Your task to perform on an android device: turn on sleep mode Image 0: 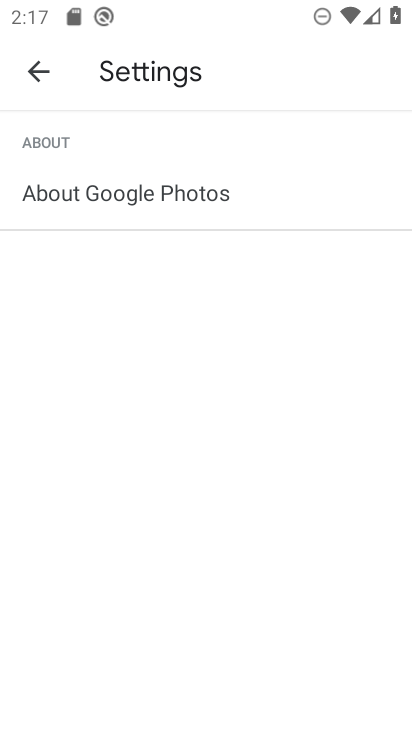
Step 0: click (23, 72)
Your task to perform on an android device: turn on sleep mode Image 1: 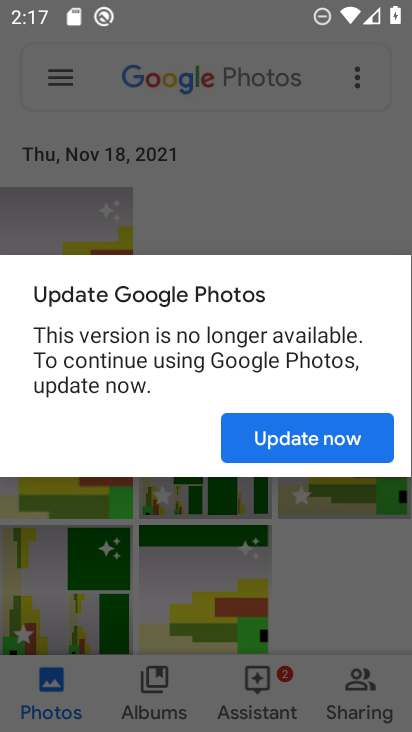
Step 1: click (277, 169)
Your task to perform on an android device: turn on sleep mode Image 2: 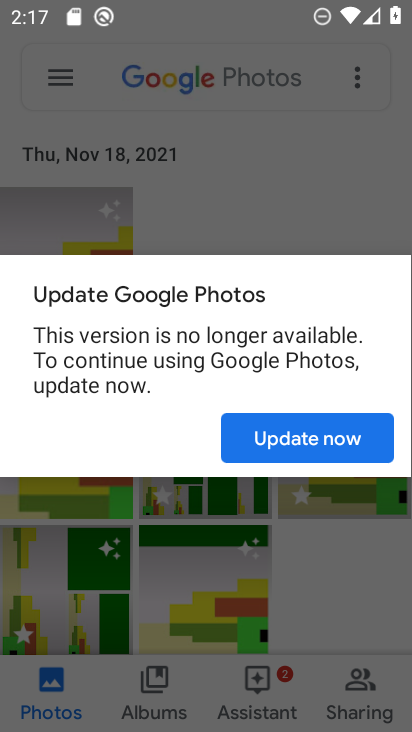
Step 2: click (278, 163)
Your task to perform on an android device: turn on sleep mode Image 3: 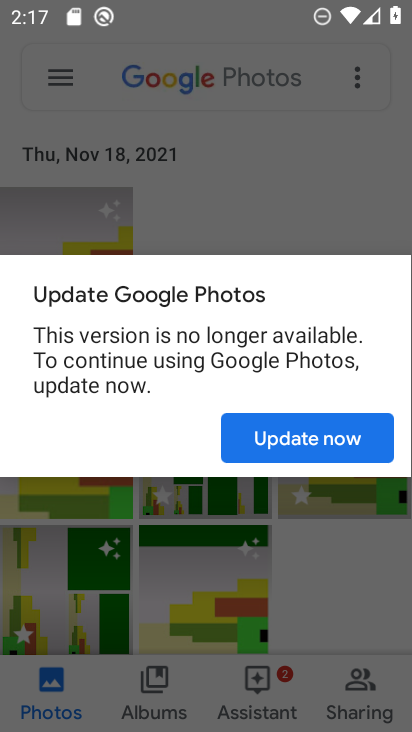
Step 3: click (278, 163)
Your task to perform on an android device: turn on sleep mode Image 4: 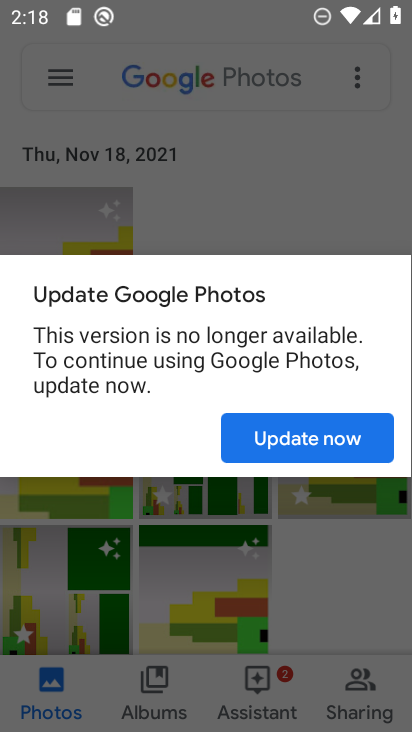
Step 4: click (267, 194)
Your task to perform on an android device: turn on sleep mode Image 5: 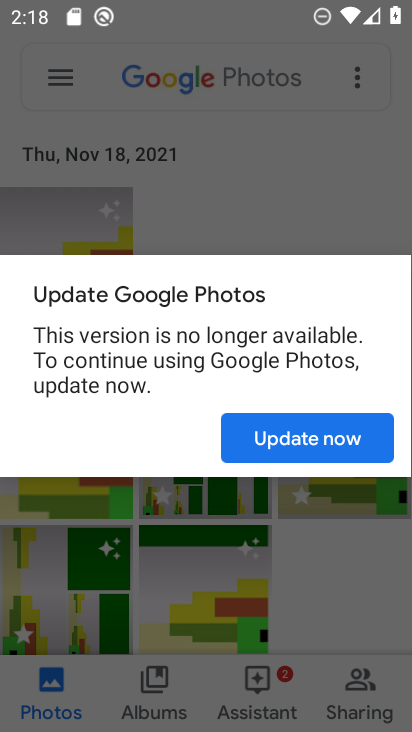
Step 5: click (269, 194)
Your task to perform on an android device: turn on sleep mode Image 6: 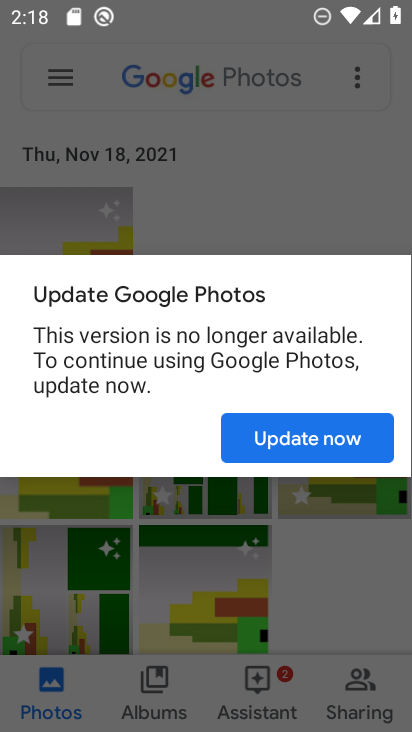
Step 6: click (276, 200)
Your task to perform on an android device: turn on sleep mode Image 7: 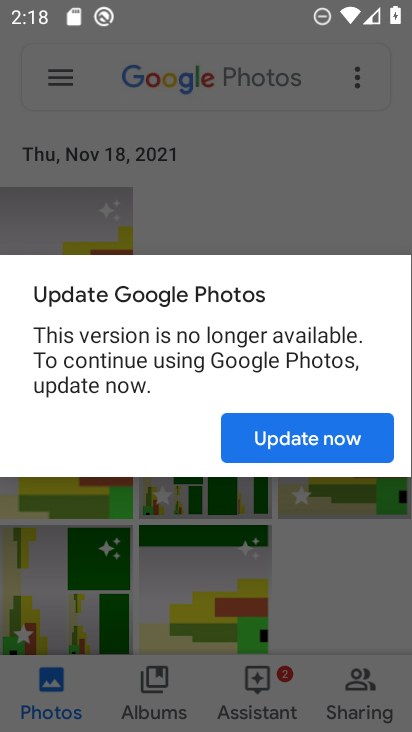
Step 7: click (276, 203)
Your task to perform on an android device: turn on sleep mode Image 8: 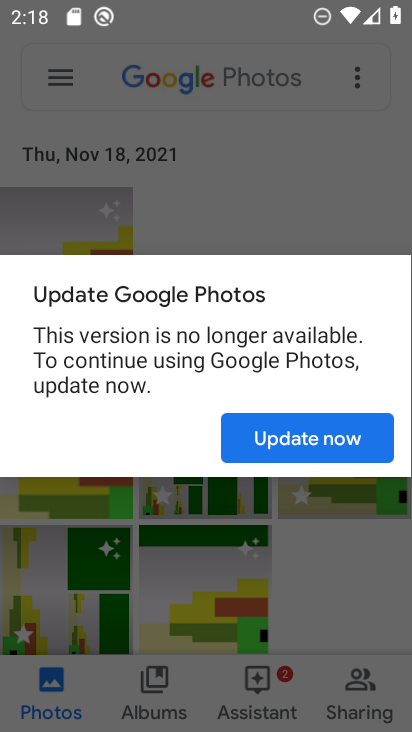
Step 8: click (277, 204)
Your task to perform on an android device: turn on sleep mode Image 9: 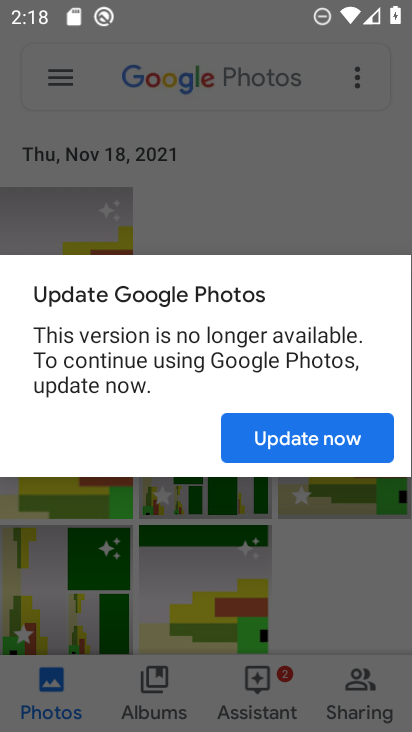
Step 9: press back button
Your task to perform on an android device: turn on sleep mode Image 10: 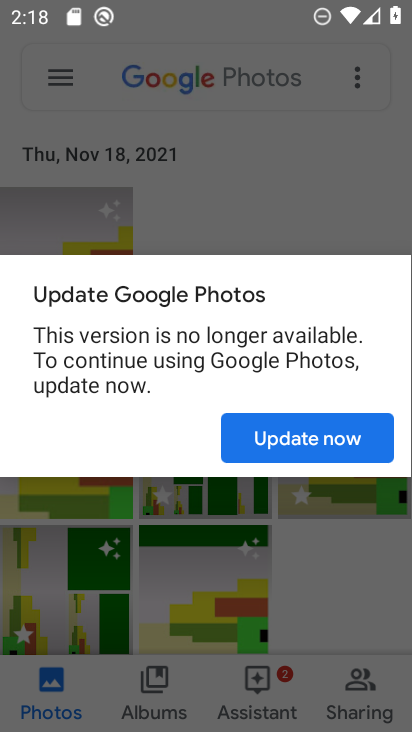
Step 10: click (261, 206)
Your task to perform on an android device: turn on sleep mode Image 11: 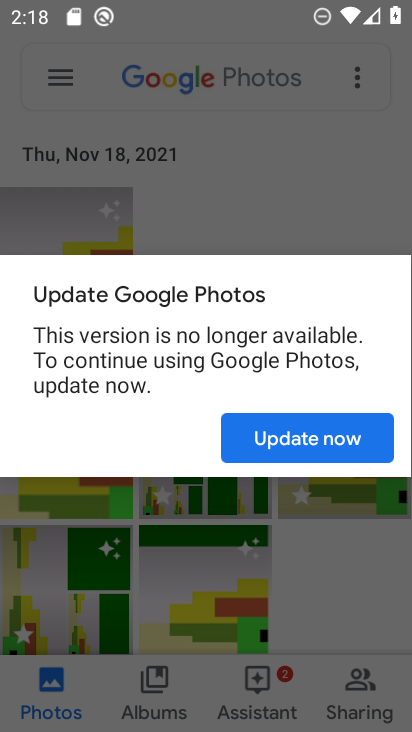
Step 11: click (269, 194)
Your task to perform on an android device: turn on sleep mode Image 12: 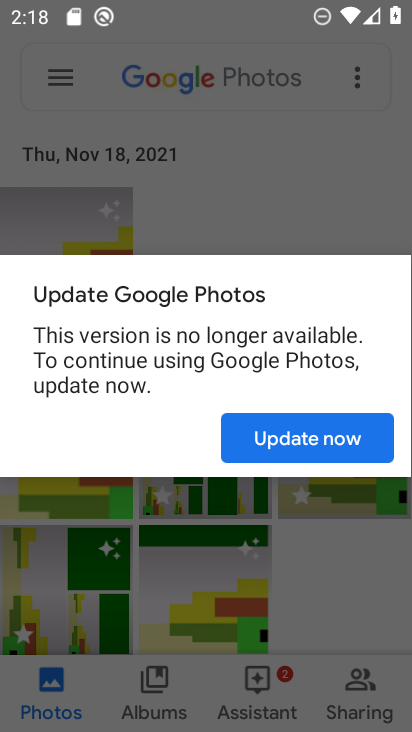
Step 12: click (284, 193)
Your task to perform on an android device: turn on sleep mode Image 13: 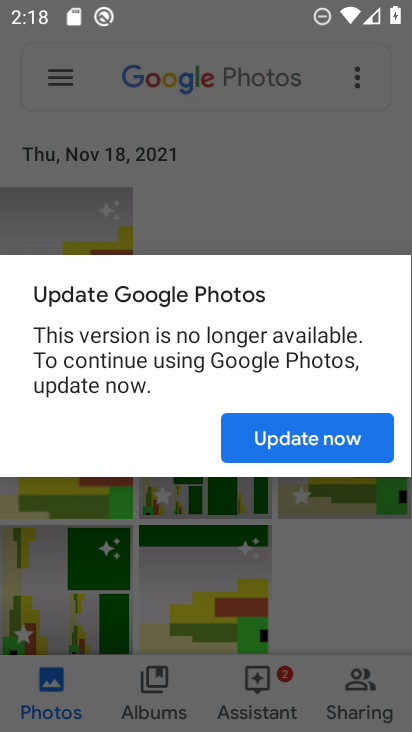
Step 13: click (281, 195)
Your task to perform on an android device: turn on sleep mode Image 14: 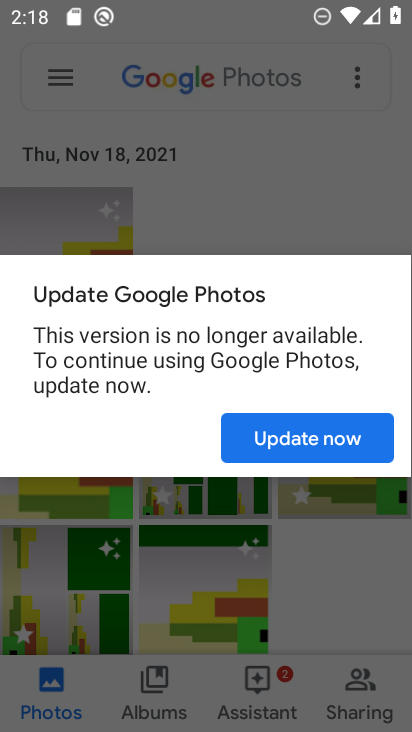
Step 14: click (284, 201)
Your task to perform on an android device: turn on sleep mode Image 15: 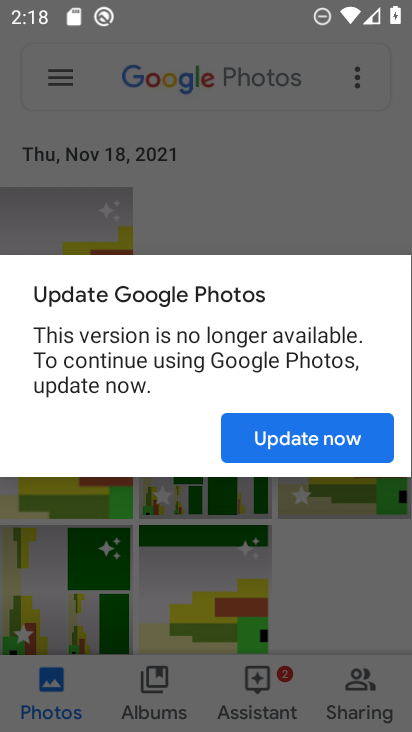
Step 15: click (289, 183)
Your task to perform on an android device: turn on sleep mode Image 16: 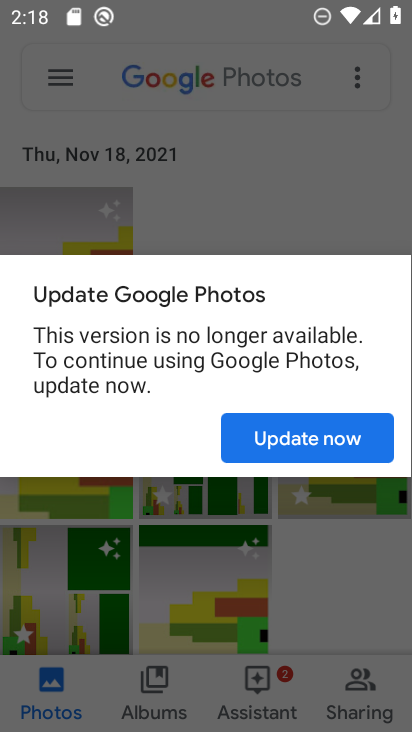
Step 16: click (292, 182)
Your task to perform on an android device: turn on sleep mode Image 17: 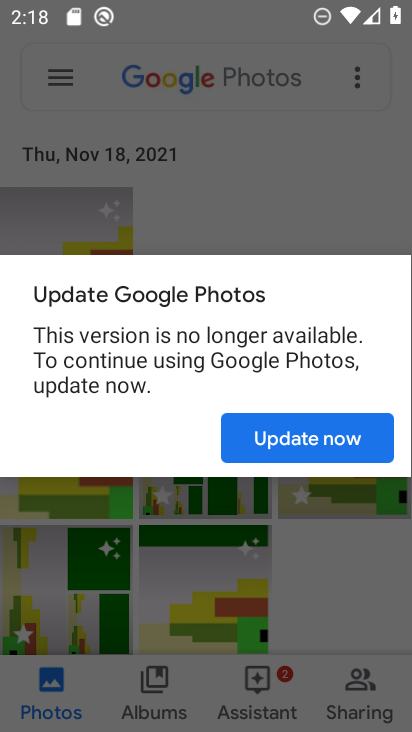
Step 17: press back button
Your task to perform on an android device: turn on sleep mode Image 18: 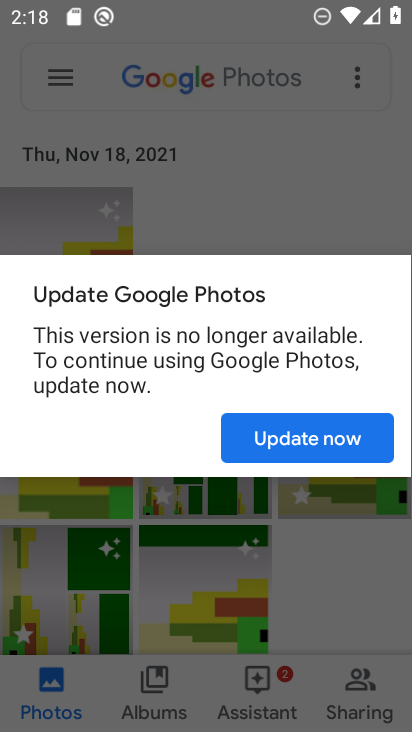
Step 18: press back button
Your task to perform on an android device: turn on sleep mode Image 19: 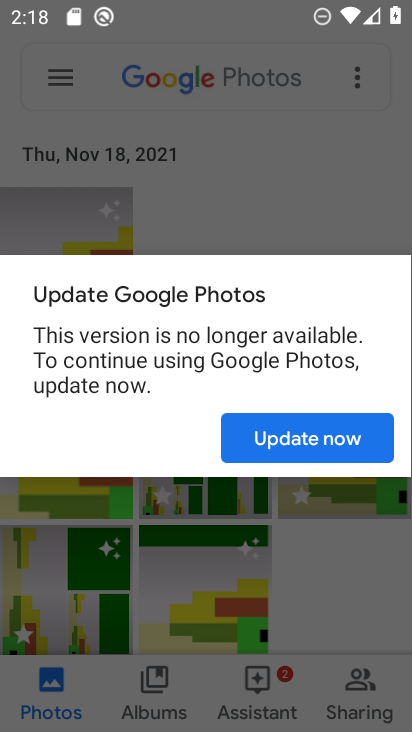
Step 19: press back button
Your task to perform on an android device: turn on sleep mode Image 20: 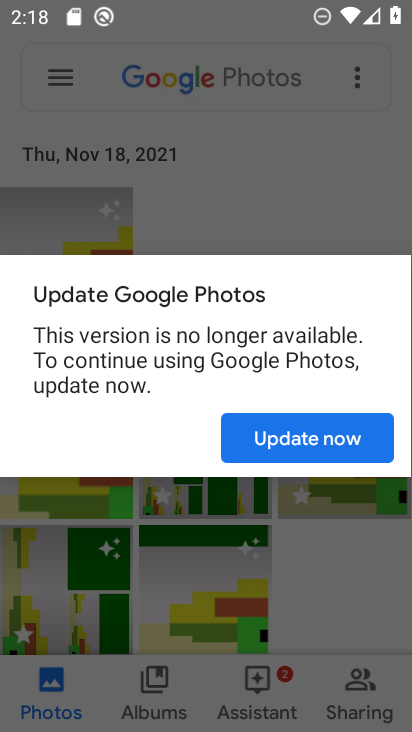
Step 20: press home button
Your task to perform on an android device: turn on sleep mode Image 21: 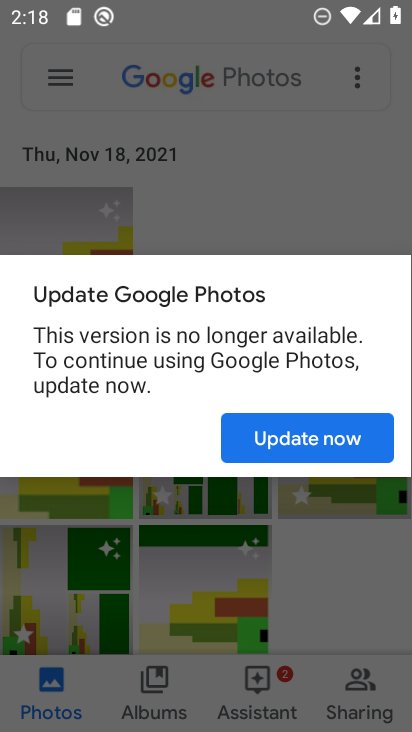
Step 21: press home button
Your task to perform on an android device: turn on sleep mode Image 22: 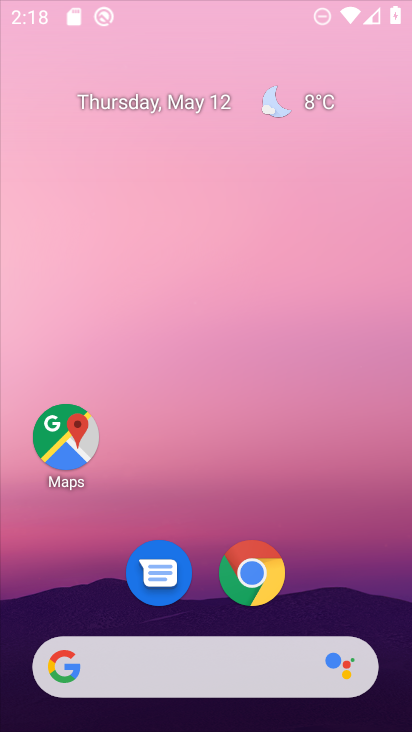
Step 22: press home button
Your task to perform on an android device: turn on sleep mode Image 23: 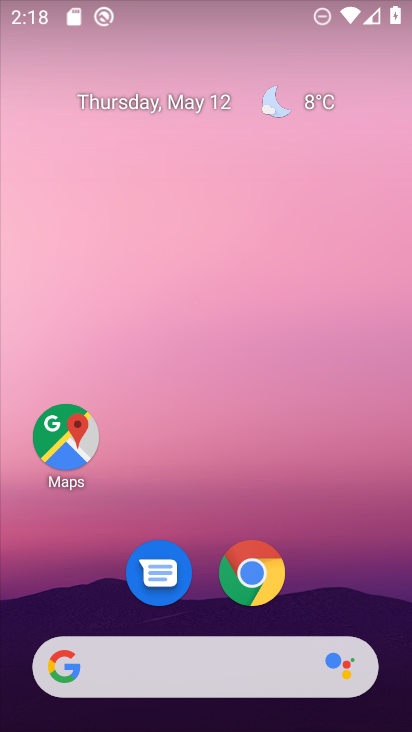
Step 23: press home button
Your task to perform on an android device: turn on sleep mode Image 24: 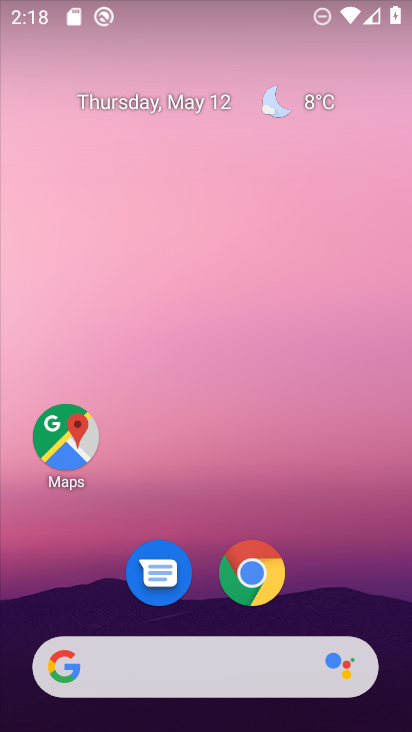
Step 24: drag from (327, 599) to (21, 194)
Your task to perform on an android device: turn on sleep mode Image 25: 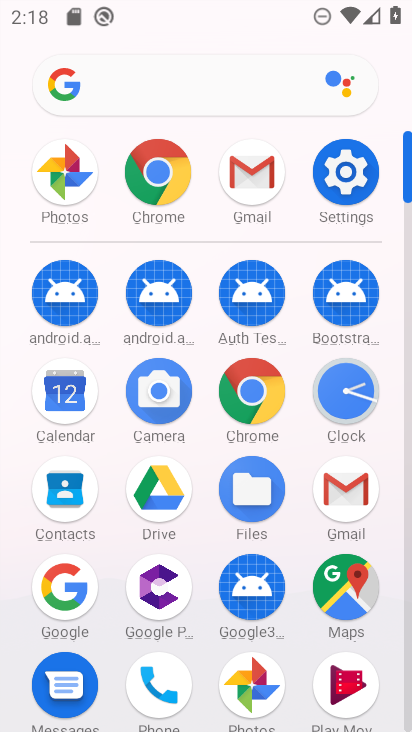
Step 25: click (336, 173)
Your task to perform on an android device: turn on sleep mode Image 26: 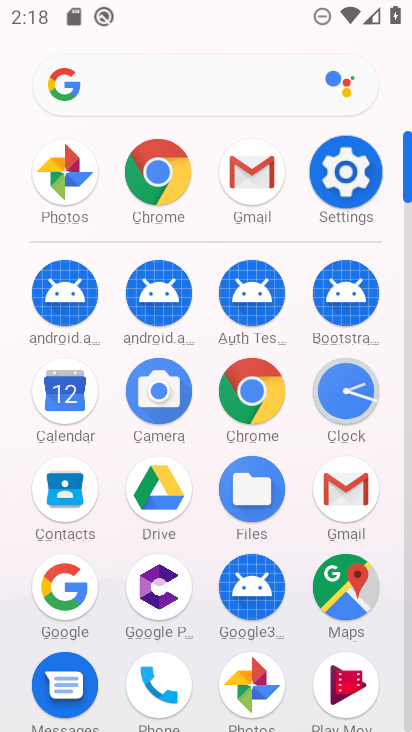
Step 26: click (336, 173)
Your task to perform on an android device: turn on sleep mode Image 27: 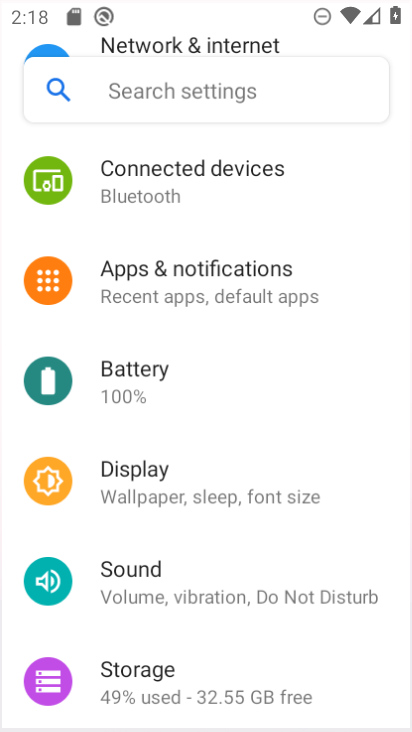
Step 27: click (338, 170)
Your task to perform on an android device: turn on sleep mode Image 28: 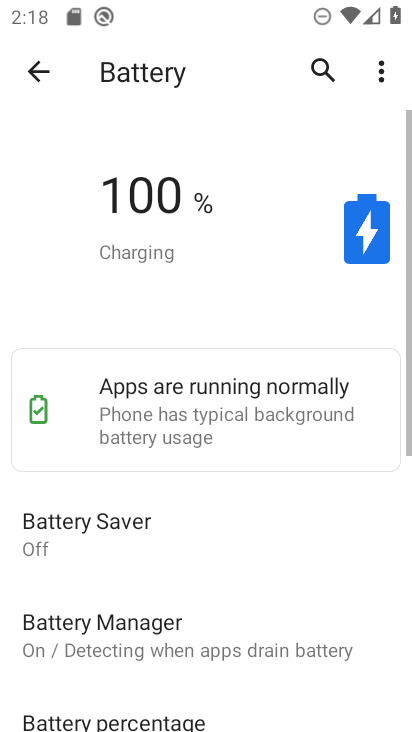
Step 28: click (40, 72)
Your task to perform on an android device: turn on sleep mode Image 29: 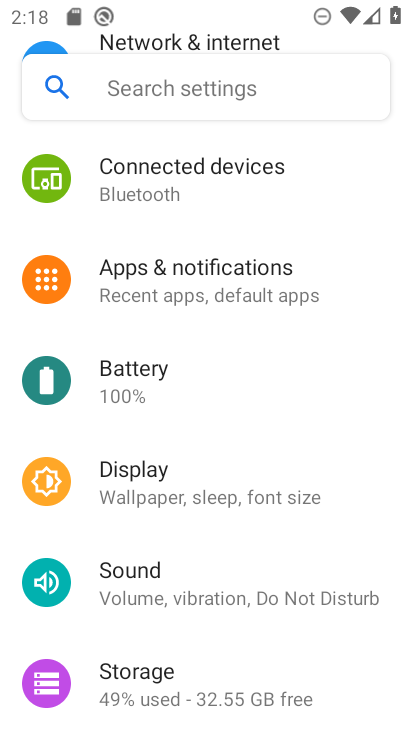
Step 29: click (154, 496)
Your task to perform on an android device: turn on sleep mode Image 30: 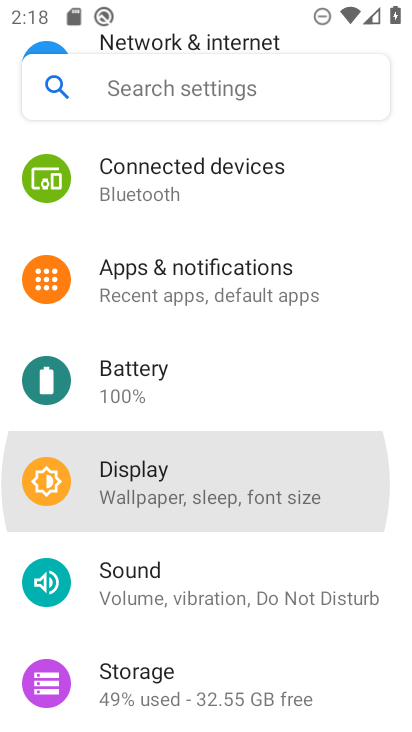
Step 30: click (151, 484)
Your task to perform on an android device: turn on sleep mode Image 31: 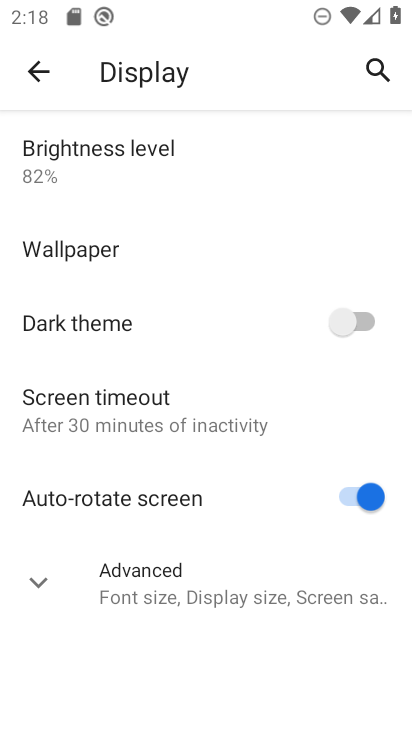
Step 31: task complete